Your task to perform on an android device: turn on bluetooth scan Image 0: 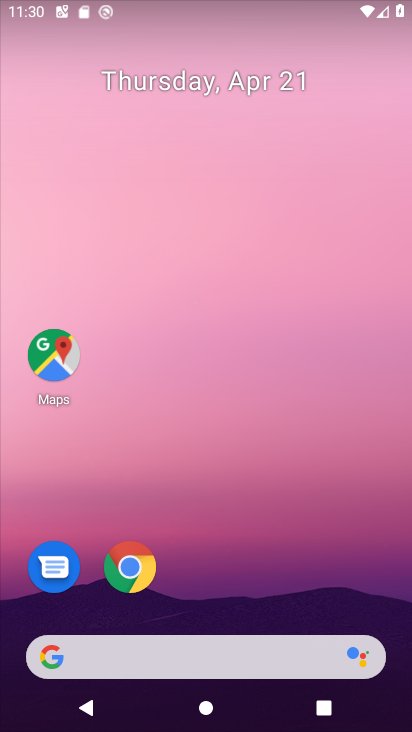
Step 0: drag from (336, 572) to (336, 197)
Your task to perform on an android device: turn on bluetooth scan Image 1: 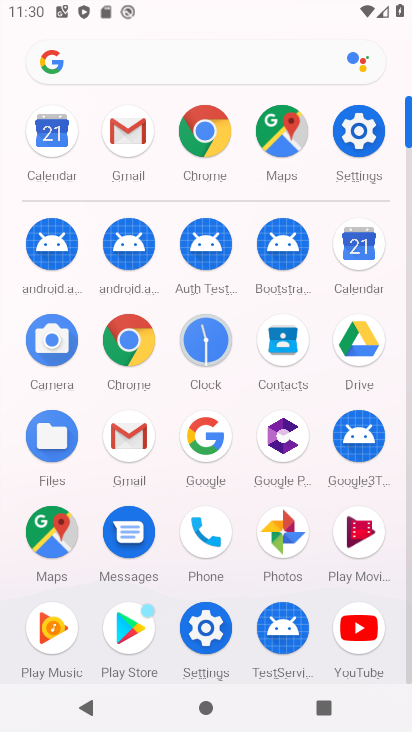
Step 1: click (364, 144)
Your task to perform on an android device: turn on bluetooth scan Image 2: 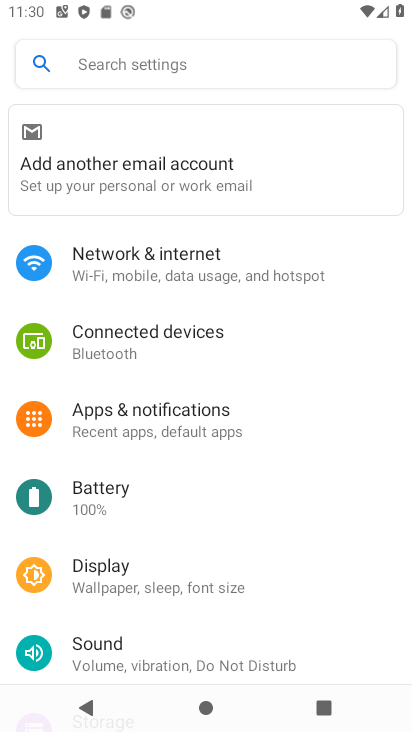
Step 2: drag from (268, 589) to (295, 235)
Your task to perform on an android device: turn on bluetooth scan Image 3: 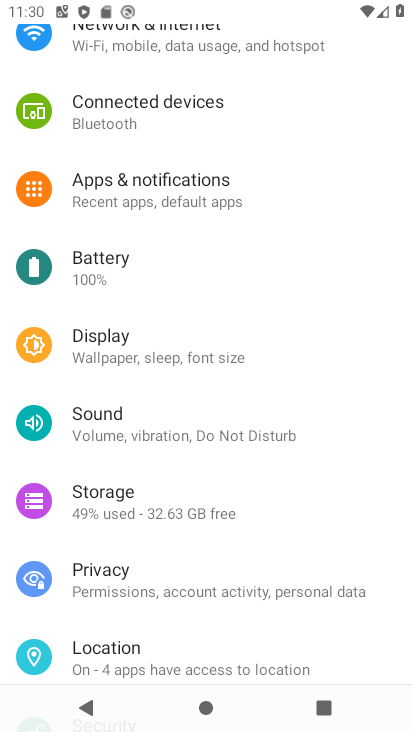
Step 3: click (194, 664)
Your task to perform on an android device: turn on bluetooth scan Image 4: 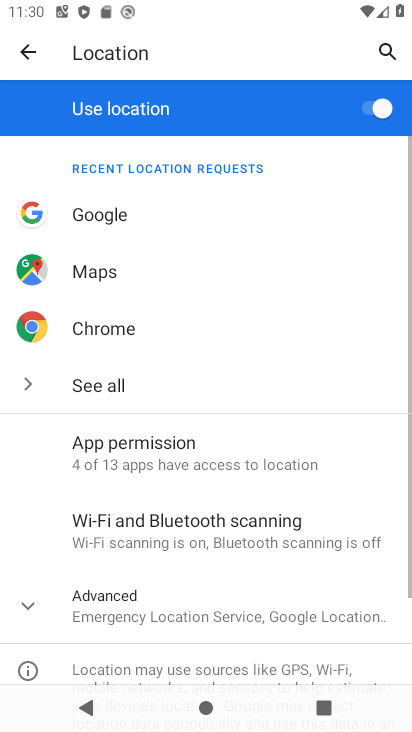
Step 4: click (278, 529)
Your task to perform on an android device: turn on bluetooth scan Image 5: 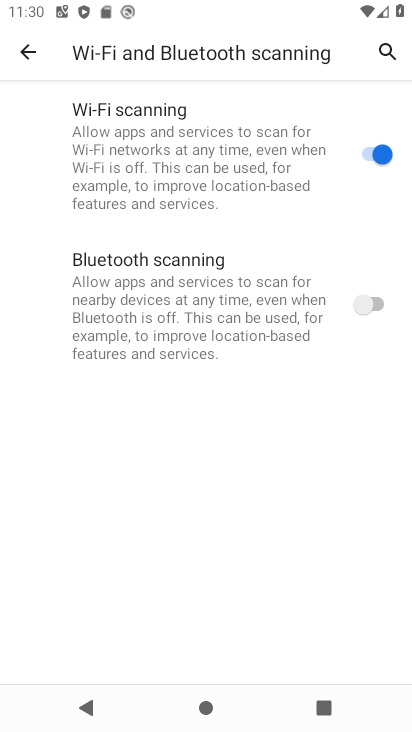
Step 5: click (381, 300)
Your task to perform on an android device: turn on bluetooth scan Image 6: 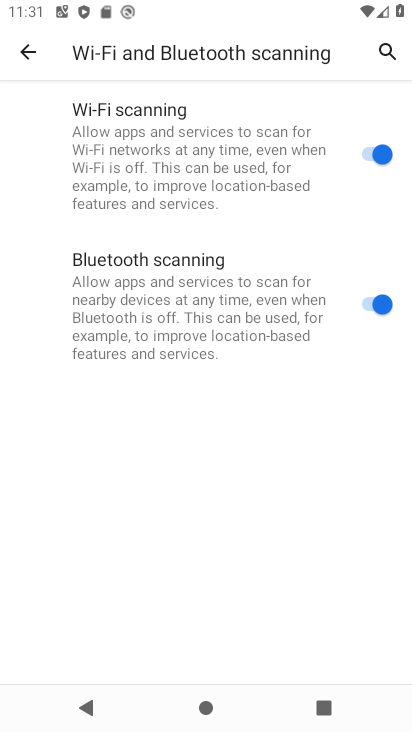
Step 6: task complete